Your task to perform on an android device: Search for Italian restaurants on Maps Image 0: 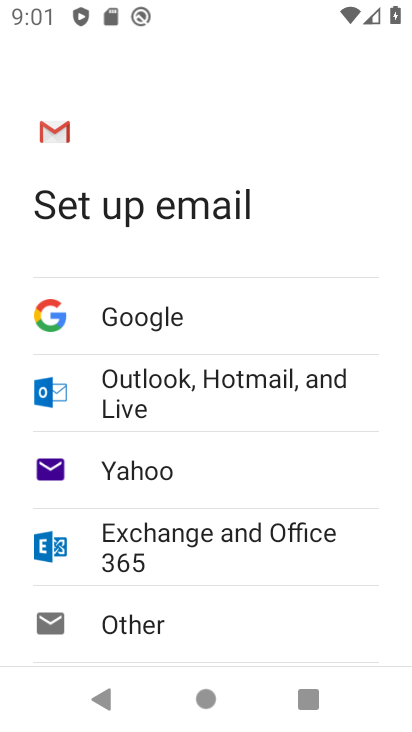
Step 0: press home button
Your task to perform on an android device: Search for Italian restaurants on Maps Image 1: 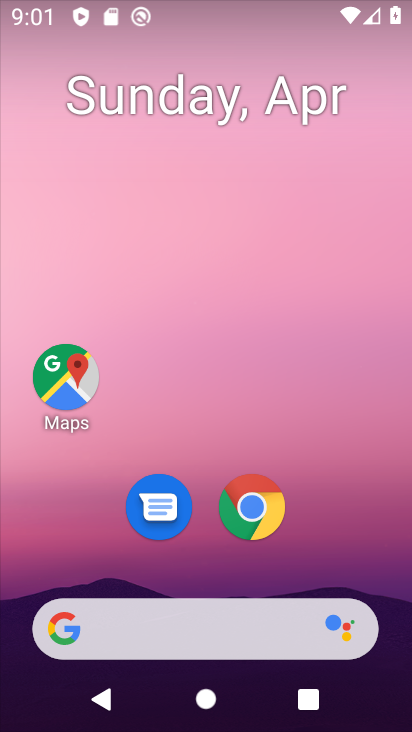
Step 1: drag from (198, 620) to (207, 32)
Your task to perform on an android device: Search for Italian restaurants on Maps Image 2: 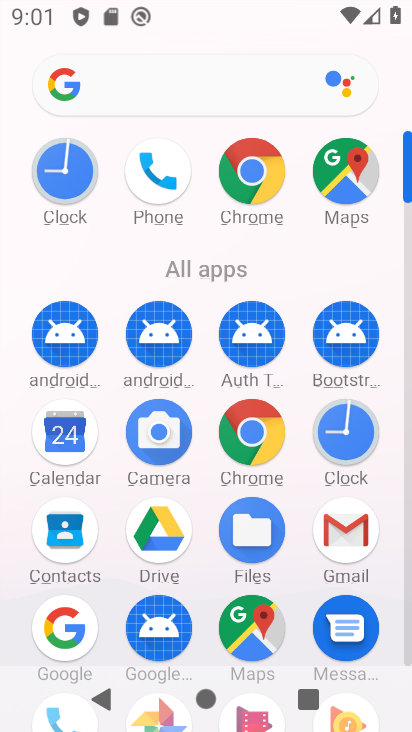
Step 2: click (246, 616)
Your task to perform on an android device: Search for Italian restaurants on Maps Image 3: 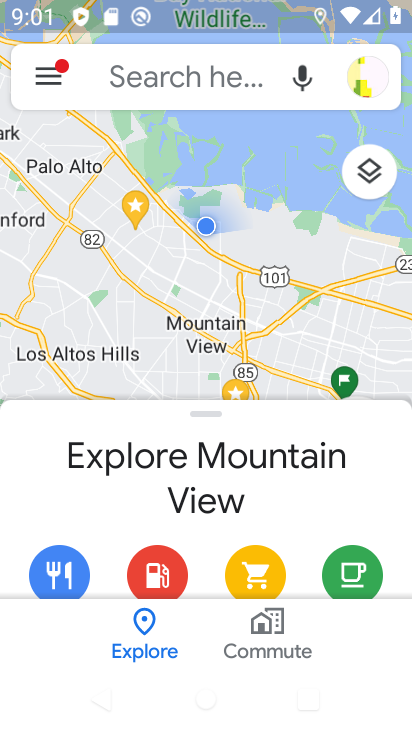
Step 3: click (52, 89)
Your task to perform on an android device: Search for Italian restaurants on Maps Image 4: 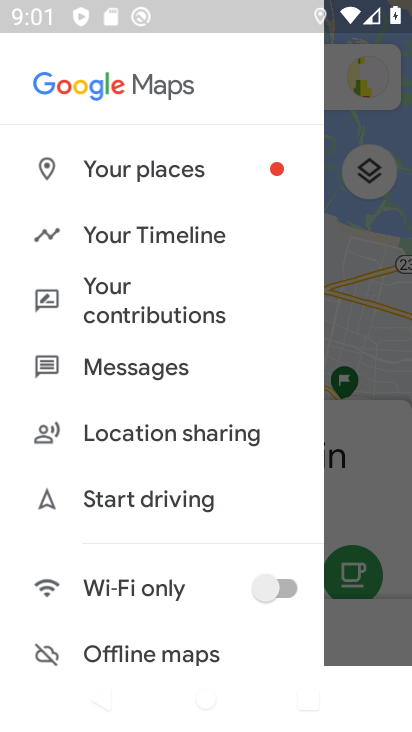
Step 4: click (354, 333)
Your task to perform on an android device: Search for Italian restaurants on Maps Image 5: 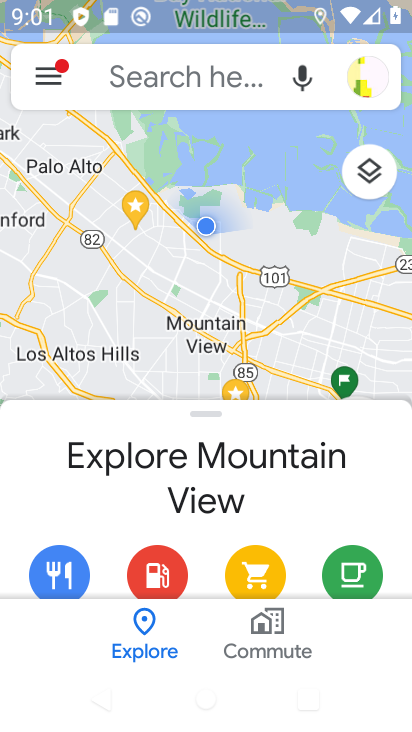
Step 5: click (203, 79)
Your task to perform on an android device: Search for Italian restaurants on Maps Image 6: 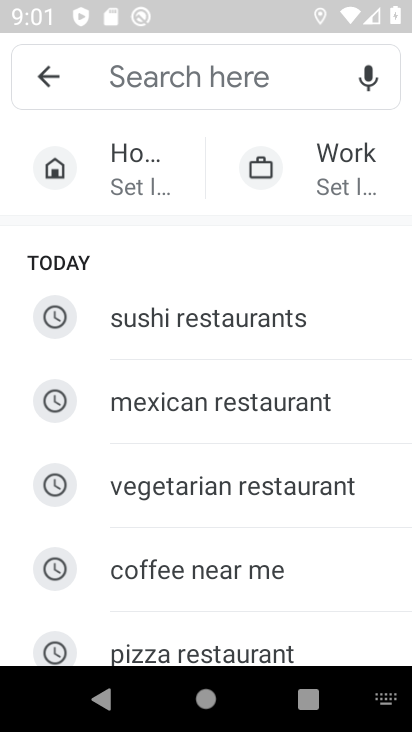
Step 6: drag from (213, 558) to (230, 138)
Your task to perform on an android device: Search for Italian restaurants on Maps Image 7: 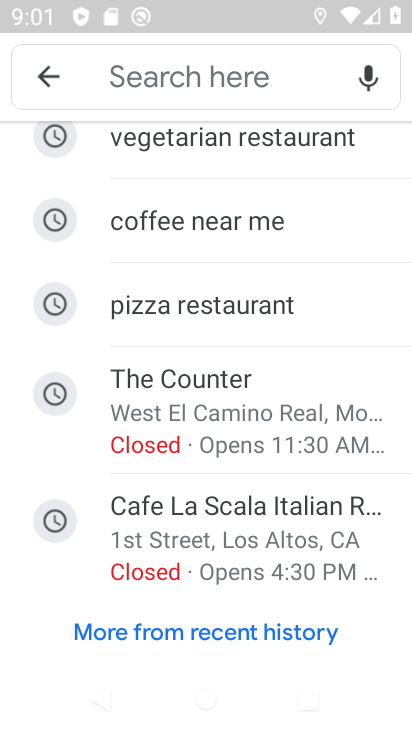
Step 7: drag from (210, 247) to (170, 635)
Your task to perform on an android device: Search for Italian restaurants on Maps Image 8: 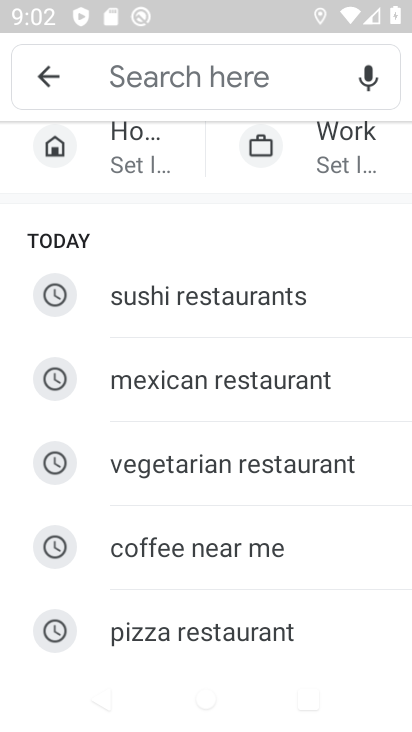
Step 8: click (234, 67)
Your task to perform on an android device: Search for Italian restaurants on Maps Image 9: 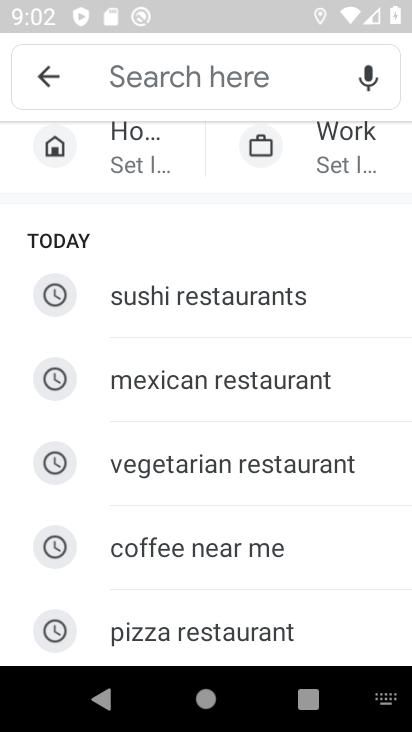
Step 9: type "italian restaurants"
Your task to perform on an android device: Search for Italian restaurants on Maps Image 10: 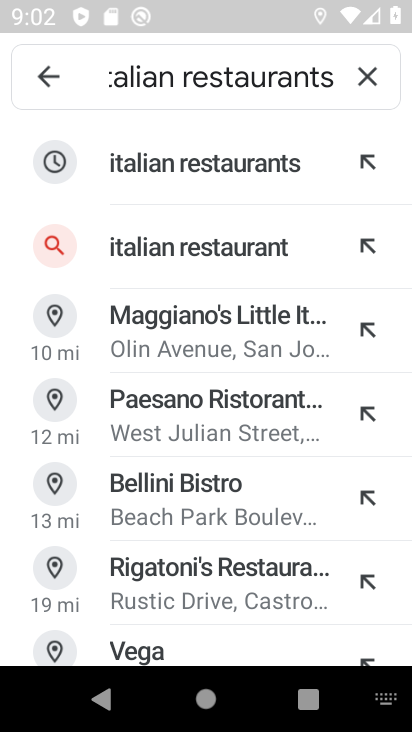
Step 10: click (232, 170)
Your task to perform on an android device: Search for Italian restaurants on Maps Image 11: 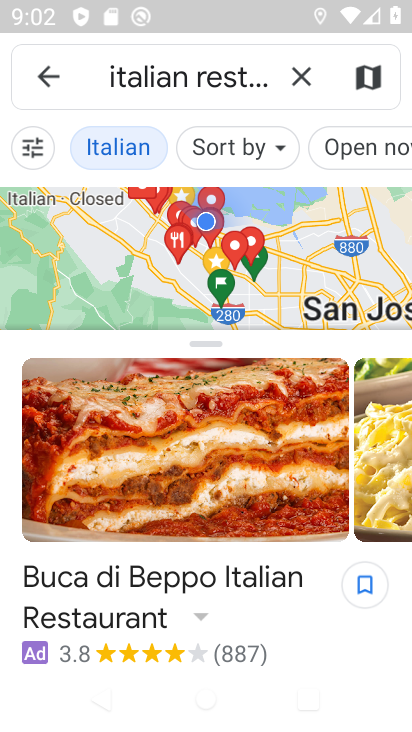
Step 11: task complete